Your task to perform on an android device: What's on my calendar today? Image 0: 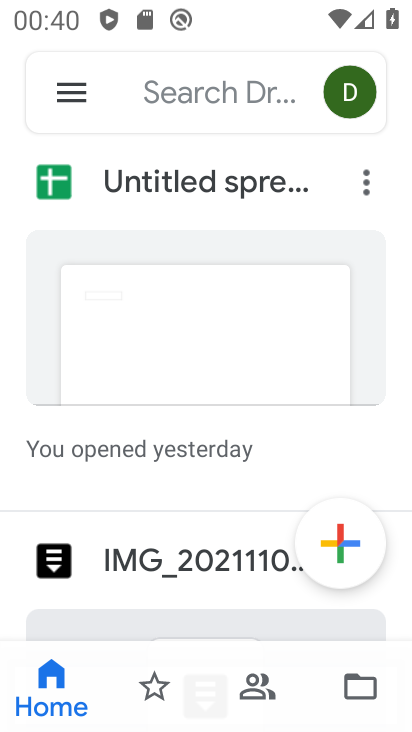
Step 0: press home button
Your task to perform on an android device: What's on my calendar today? Image 1: 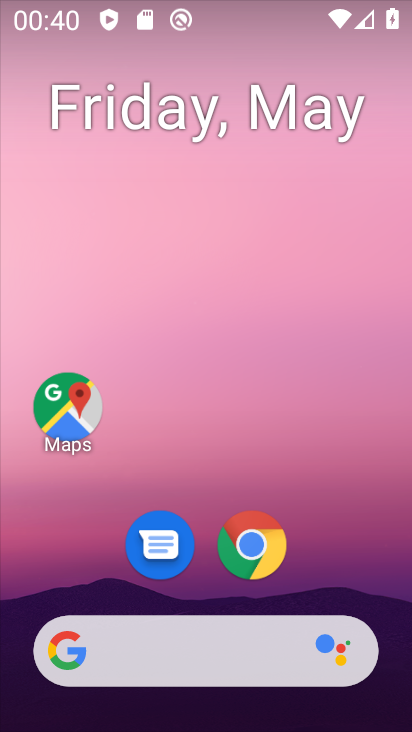
Step 1: drag from (284, 597) to (257, 116)
Your task to perform on an android device: What's on my calendar today? Image 2: 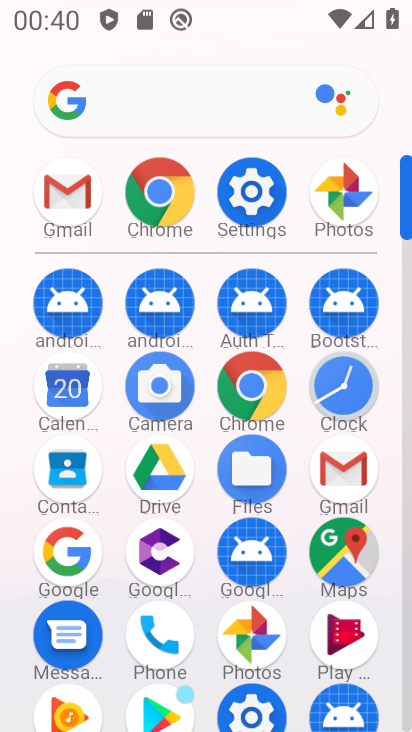
Step 2: click (72, 405)
Your task to perform on an android device: What's on my calendar today? Image 3: 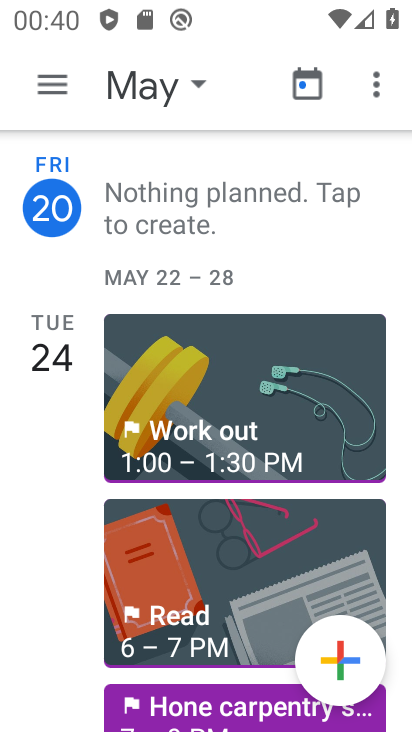
Step 3: task complete